Your task to perform on an android device: turn notification dots off Image 0: 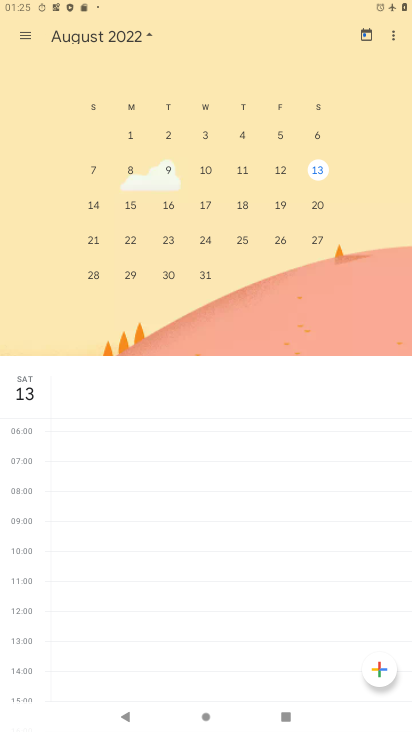
Step 0: press home button
Your task to perform on an android device: turn notification dots off Image 1: 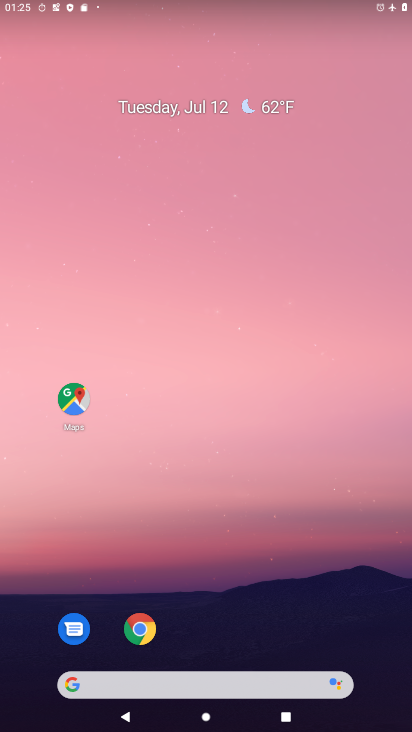
Step 1: drag from (267, 567) to (305, 25)
Your task to perform on an android device: turn notification dots off Image 2: 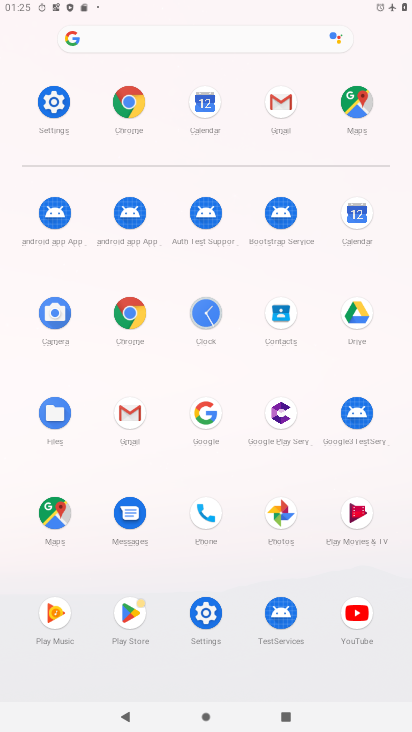
Step 2: click (220, 614)
Your task to perform on an android device: turn notification dots off Image 3: 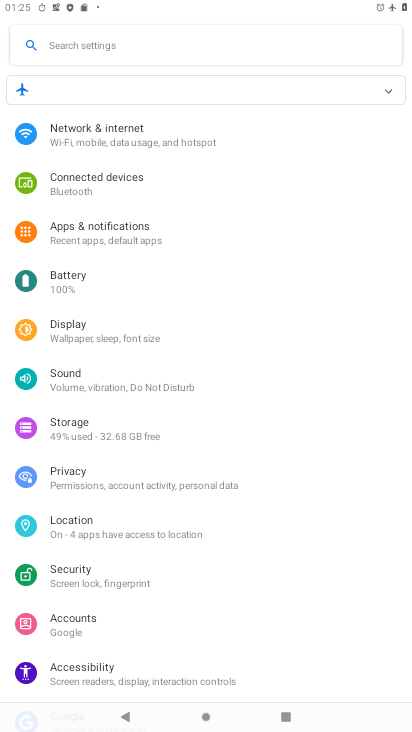
Step 3: click (125, 229)
Your task to perform on an android device: turn notification dots off Image 4: 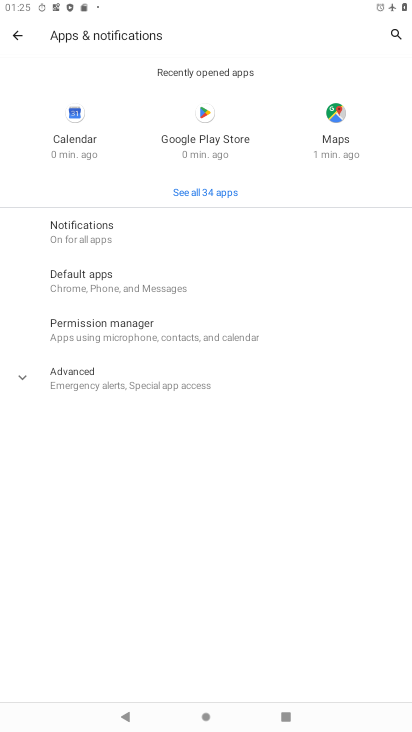
Step 4: click (78, 237)
Your task to perform on an android device: turn notification dots off Image 5: 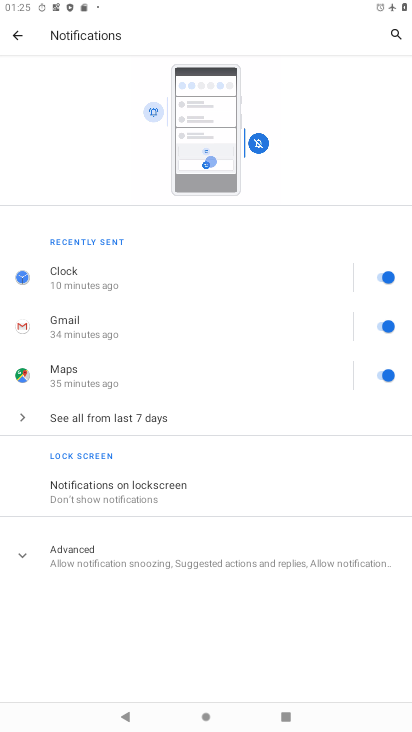
Step 5: click (141, 538)
Your task to perform on an android device: turn notification dots off Image 6: 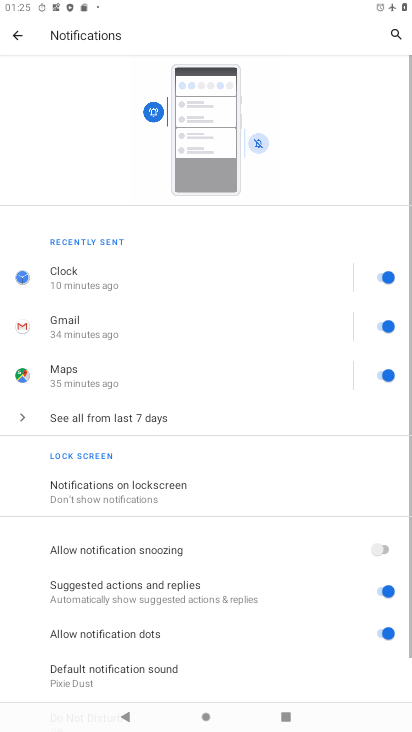
Step 6: drag from (217, 536) to (296, 231)
Your task to perform on an android device: turn notification dots off Image 7: 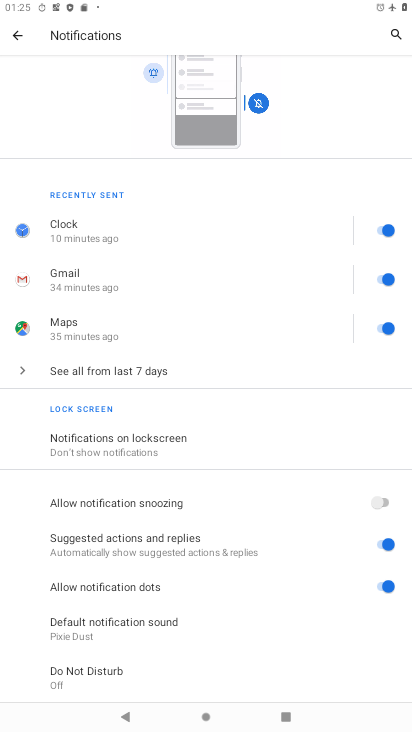
Step 7: click (391, 584)
Your task to perform on an android device: turn notification dots off Image 8: 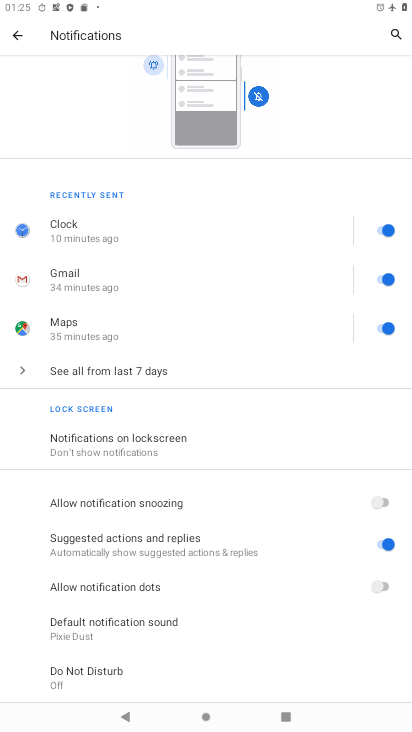
Step 8: task complete